Your task to perform on an android device: When is my next meeting? Image 0: 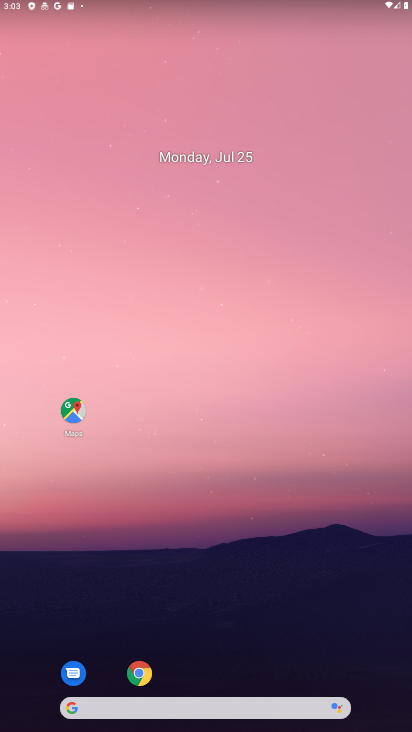
Step 0: drag from (267, 595) to (268, 243)
Your task to perform on an android device: When is my next meeting? Image 1: 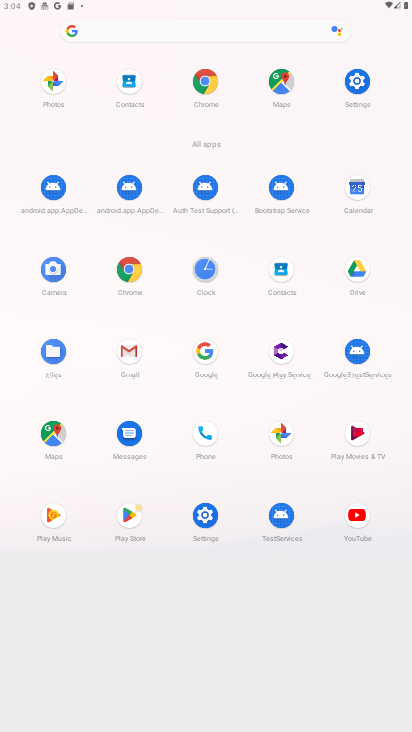
Step 1: click (359, 194)
Your task to perform on an android device: When is my next meeting? Image 2: 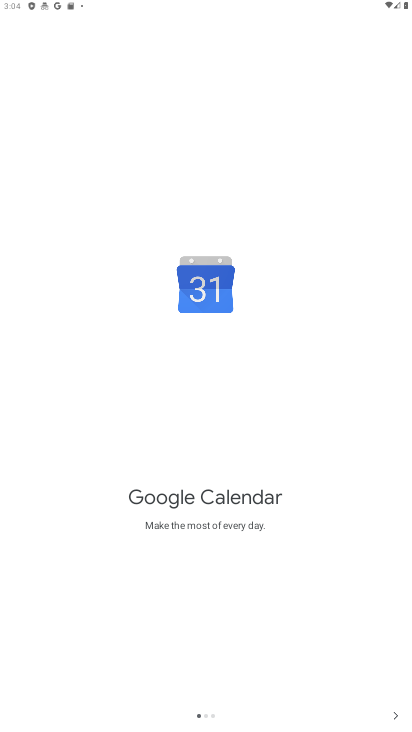
Step 2: click (395, 717)
Your task to perform on an android device: When is my next meeting? Image 3: 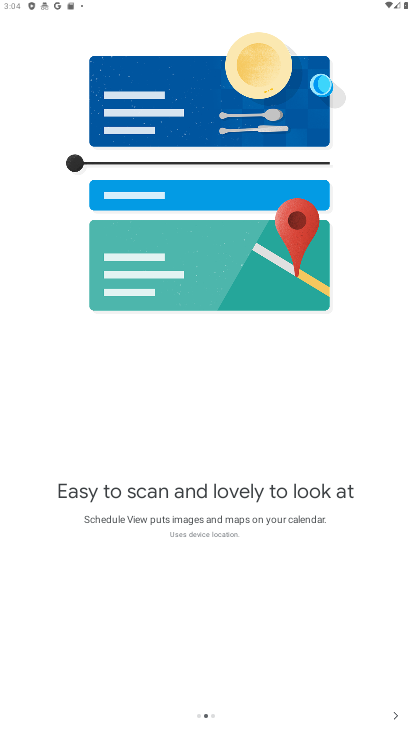
Step 3: click (395, 717)
Your task to perform on an android device: When is my next meeting? Image 4: 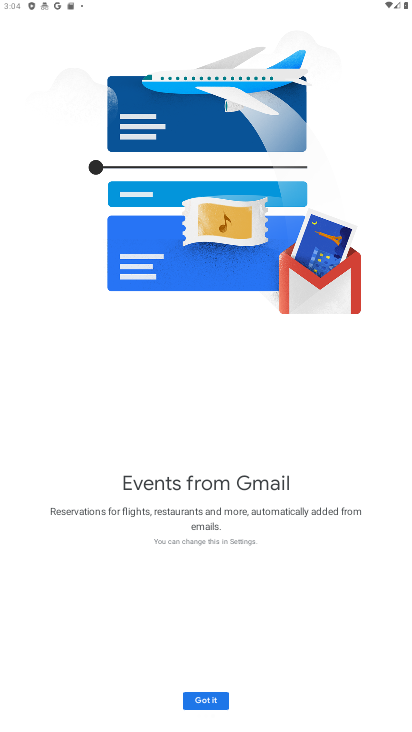
Step 4: click (397, 717)
Your task to perform on an android device: When is my next meeting? Image 5: 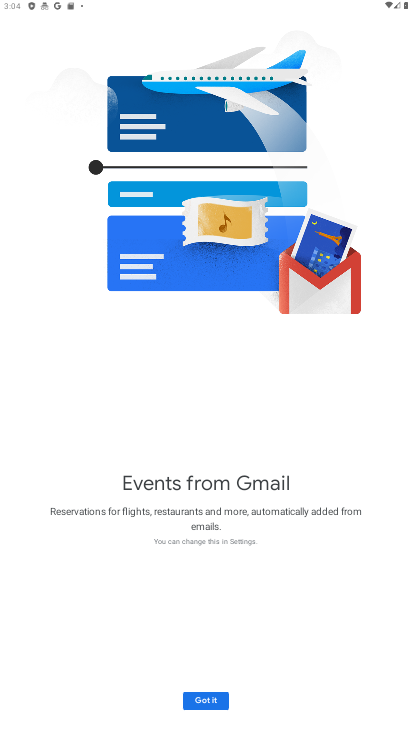
Step 5: click (397, 717)
Your task to perform on an android device: When is my next meeting? Image 6: 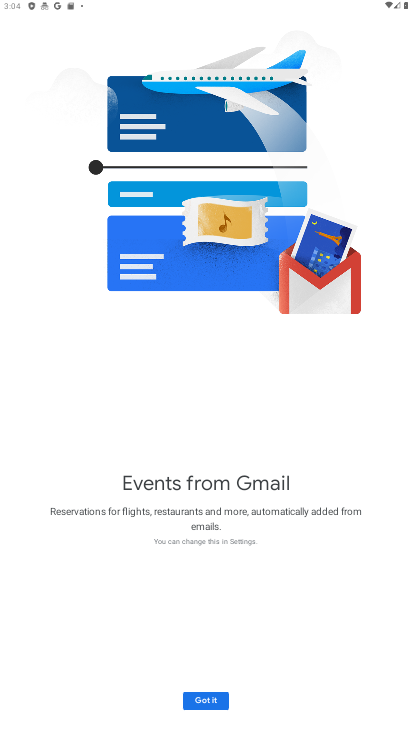
Step 6: click (215, 696)
Your task to perform on an android device: When is my next meeting? Image 7: 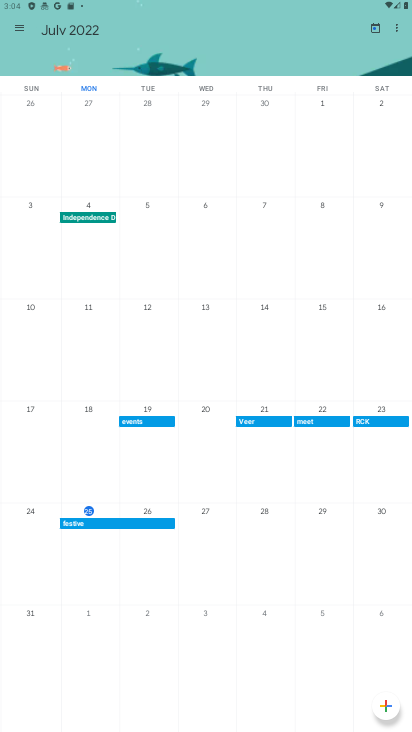
Step 7: task complete